Your task to perform on an android device: Open display settings Image 0: 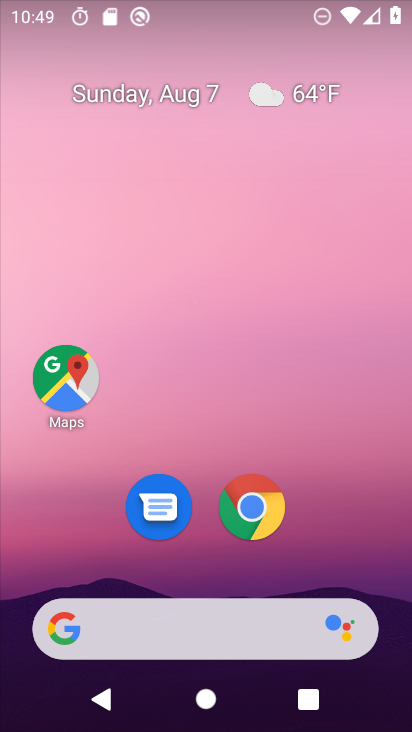
Step 0: drag from (337, 425) to (353, 97)
Your task to perform on an android device: Open display settings Image 1: 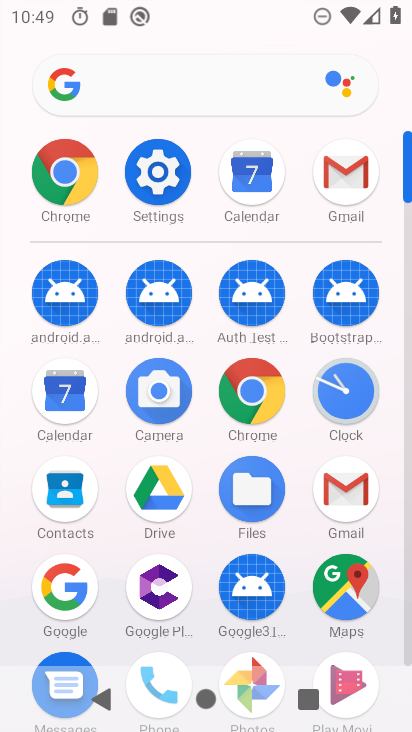
Step 1: click (162, 176)
Your task to perform on an android device: Open display settings Image 2: 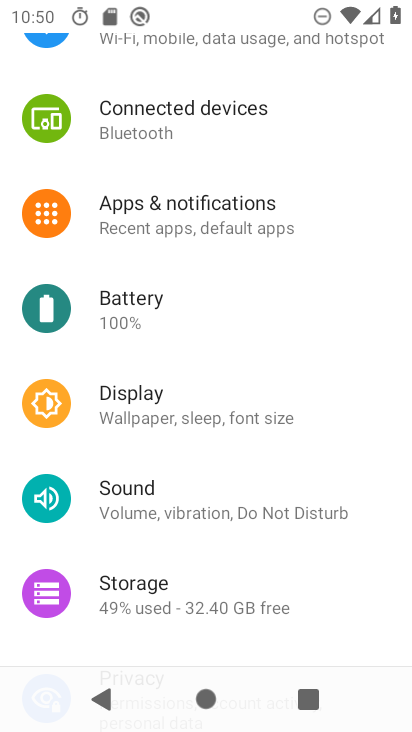
Step 2: click (148, 412)
Your task to perform on an android device: Open display settings Image 3: 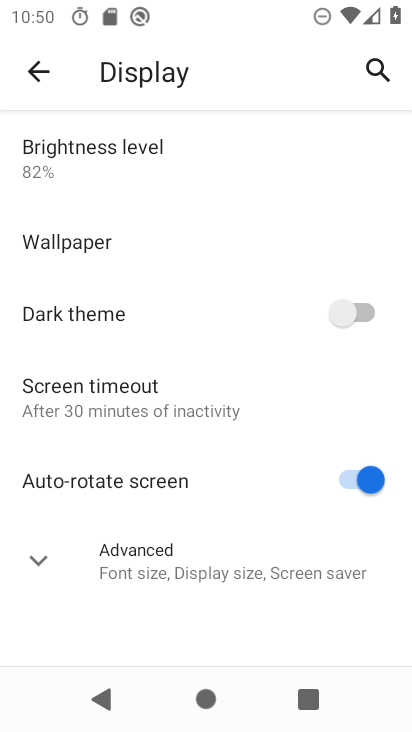
Step 3: task complete